Your task to perform on an android device: Open network settings Image 0: 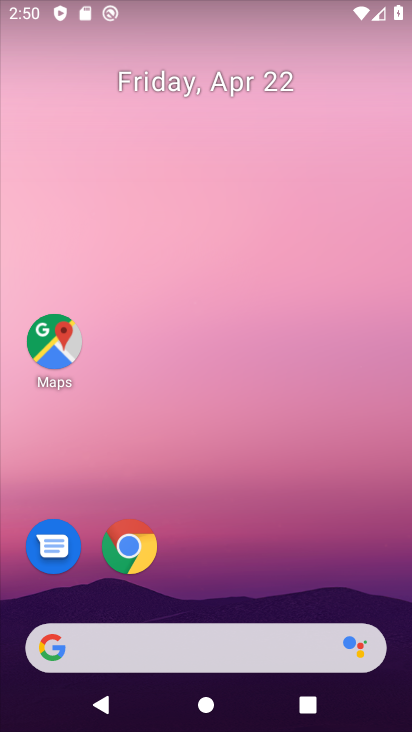
Step 0: drag from (366, 563) to (351, 153)
Your task to perform on an android device: Open network settings Image 1: 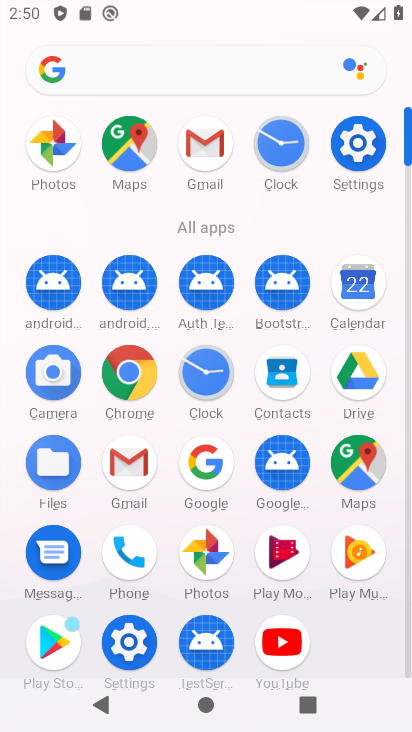
Step 1: click (357, 154)
Your task to perform on an android device: Open network settings Image 2: 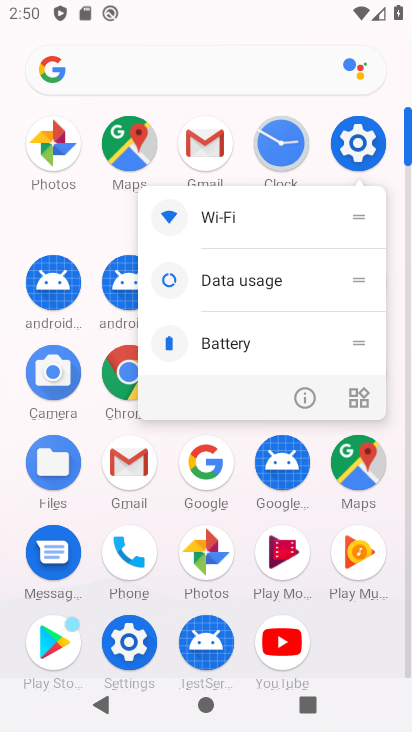
Step 2: click (348, 167)
Your task to perform on an android device: Open network settings Image 3: 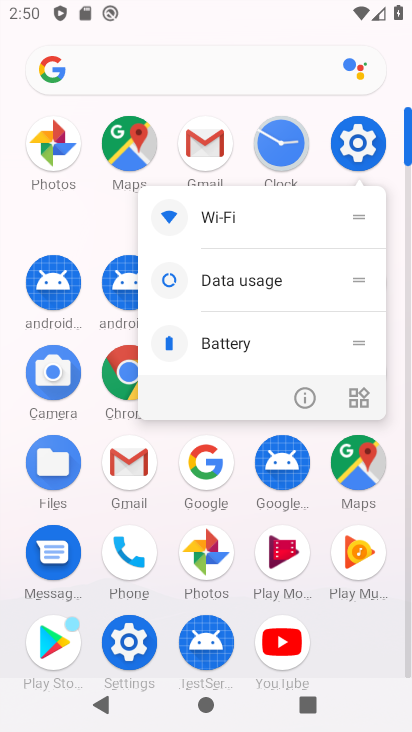
Step 3: click (369, 173)
Your task to perform on an android device: Open network settings Image 4: 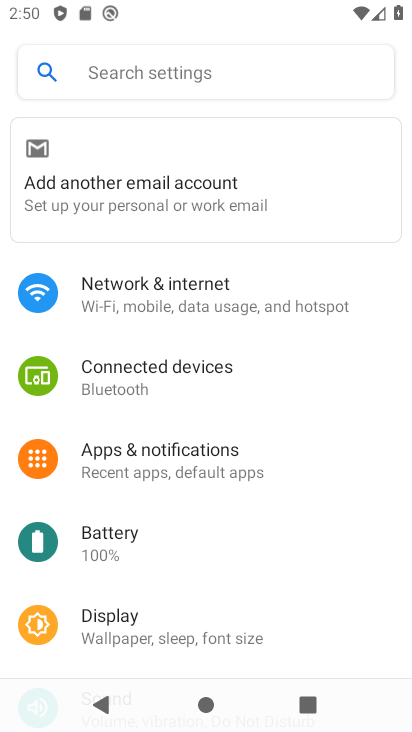
Step 4: click (191, 292)
Your task to perform on an android device: Open network settings Image 5: 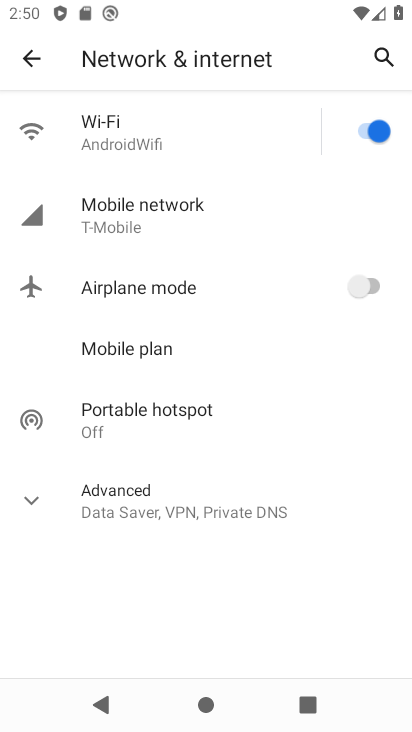
Step 5: click (162, 220)
Your task to perform on an android device: Open network settings Image 6: 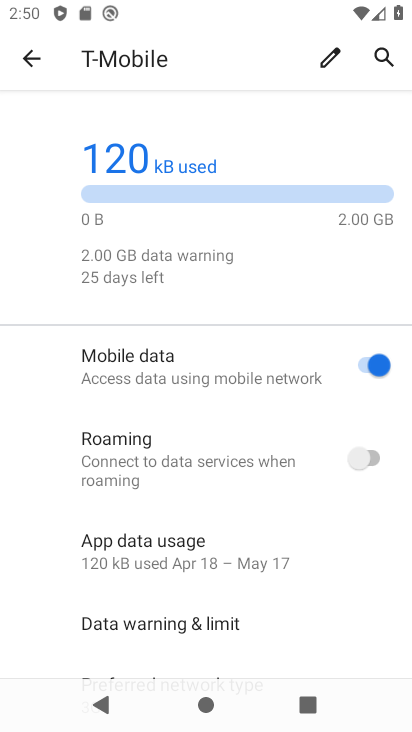
Step 6: task complete